Your task to perform on an android device: Open network settings Image 0: 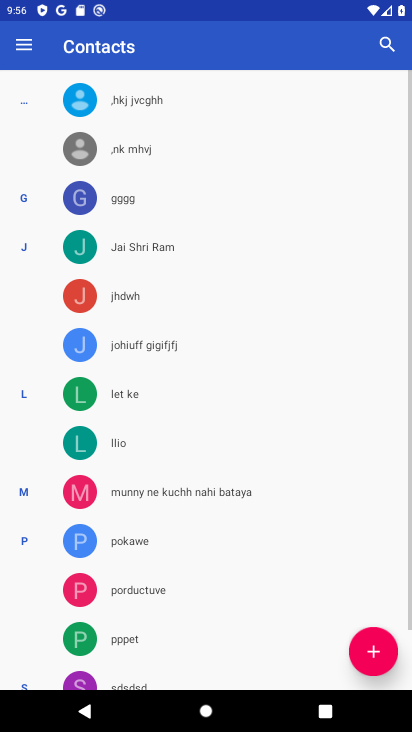
Step 0: press home button
Your task to perform on an android device: Open network settings Image 1: 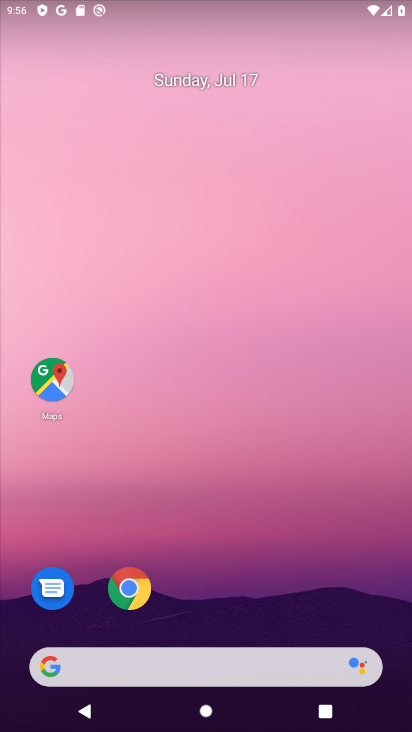
Step 1: drag from (194, 658) to (184, 4)
Your task to perform on an android device: Open network settings Image 2: 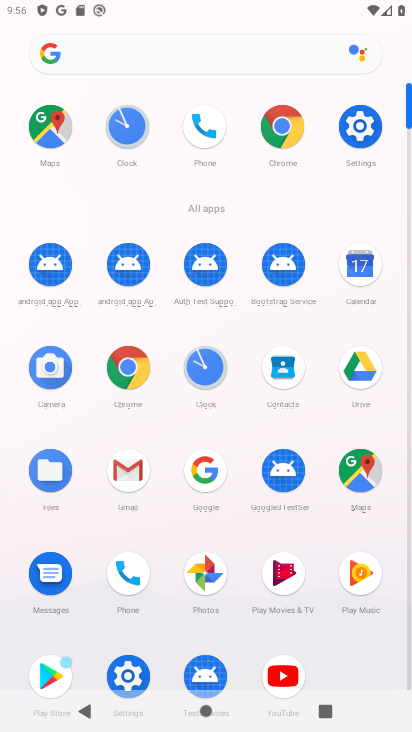
Step 2: click (130, 655)
Your task to perform on an android device: Open network settings Image 3: 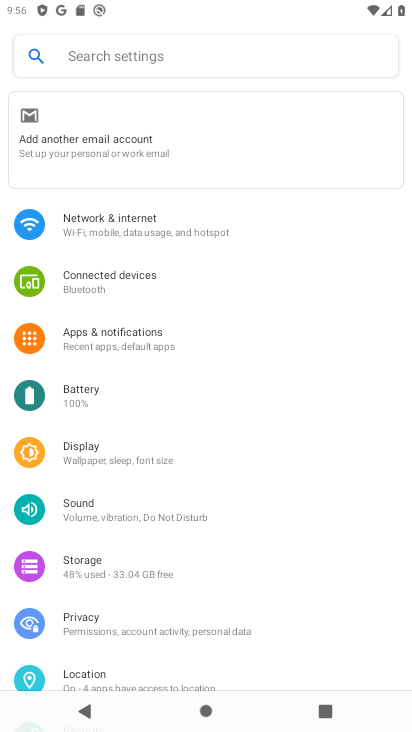
Step 3: click (105, 208)
Your task to perform on an android device: Open network settings Image 4: 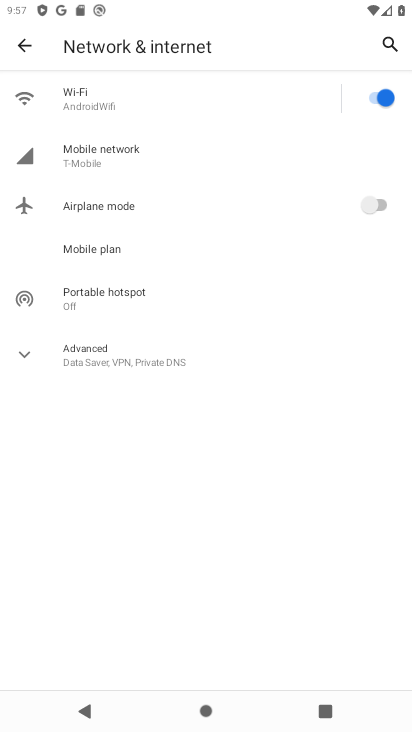
Step 4: click (79, 142)
Your task to perform on an android device: Open network settings Image 5: 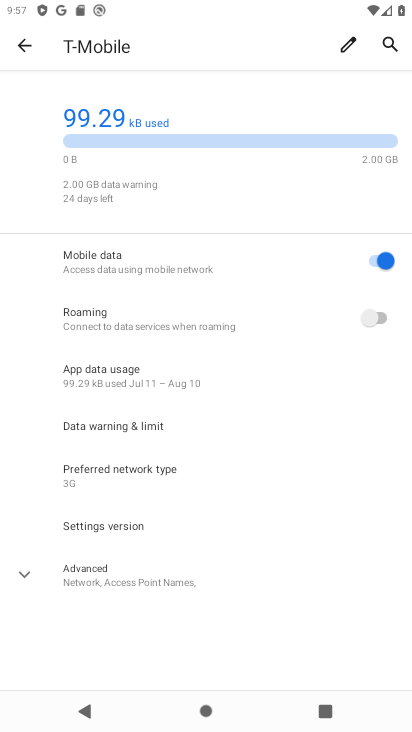
Step 5: task complete